Your task to perform on an android device: turn off notifications settings in the gmail app Image 0: 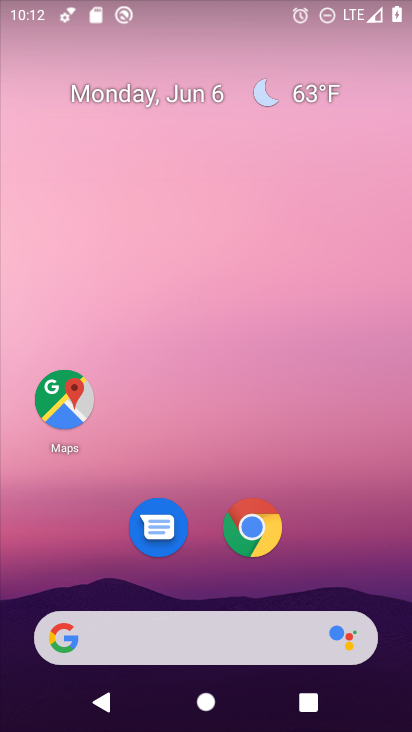
Step 0: drag from (384, 592) to (375, 219)
Your task to perform on an android device: turn off notifications settings in the gmail app Image 1: 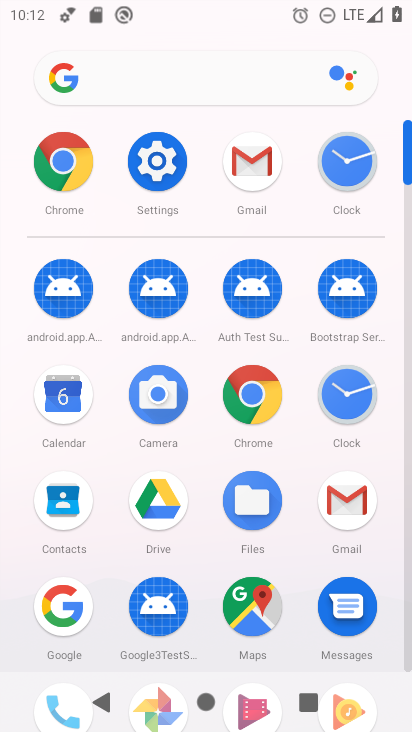
Step 1: click (343, 495)
Your task to perform on an android device: turn off notifications settings in the gmail app Image 2: 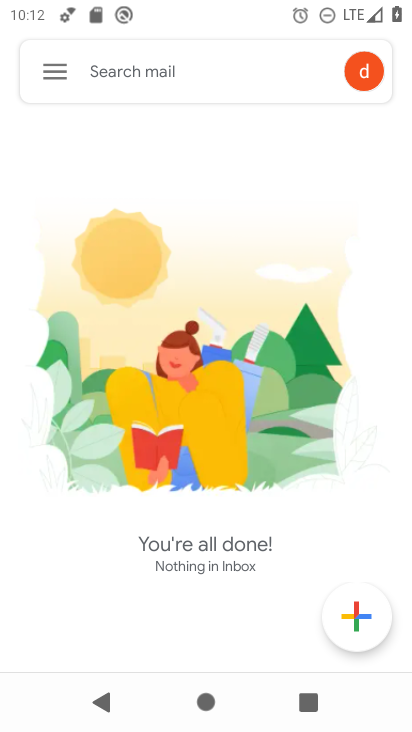
Step 2: click (62, 76)
Your task to perform on an android device: turn off notifications settings in the gmail app Image 3: 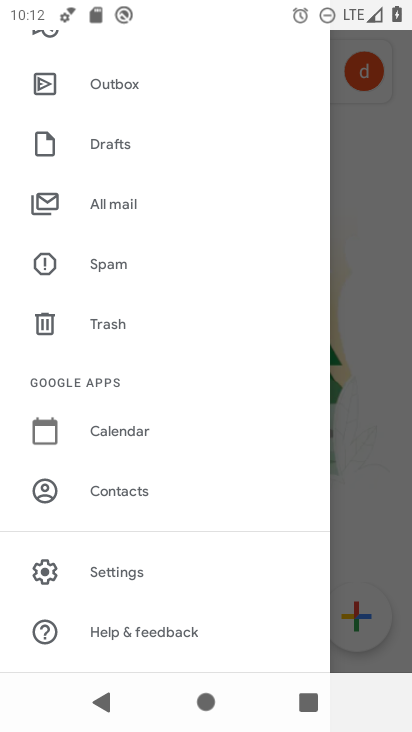
Step 3: drag from (241, 438) to (250, 358)
Your task to perform on an android device: turn off notifications settings in the gmail app Image 4: 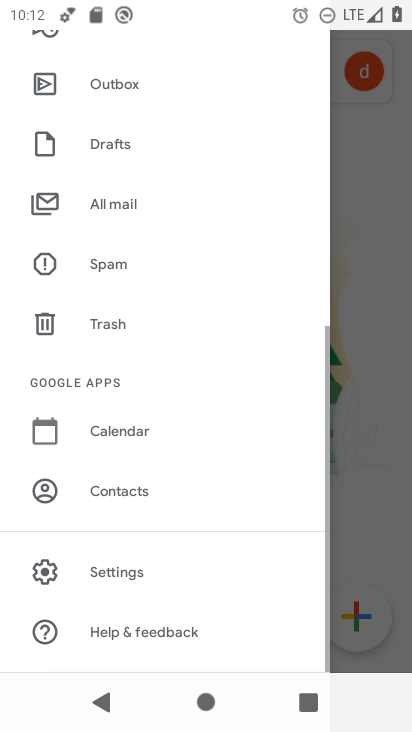
Step 4: click (134, 572)
Your task to perform on an android device: turn off notifications settings in the gmail app Image 5: 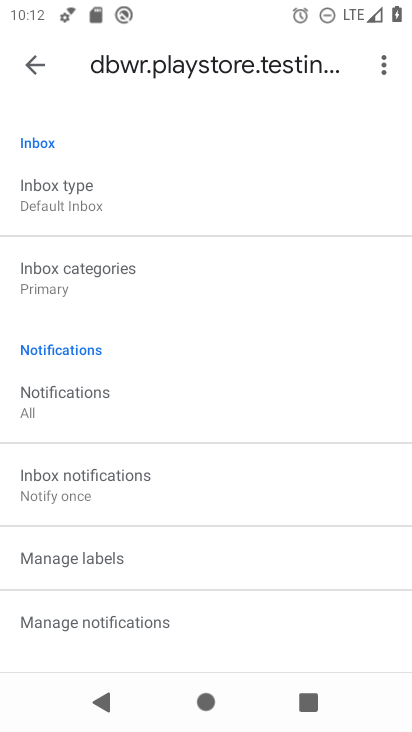
Step 5: drag from (317, 538) to (328, 440)
Your task to perform on an android device: turn off notifications settings in the gmail app Image 6: 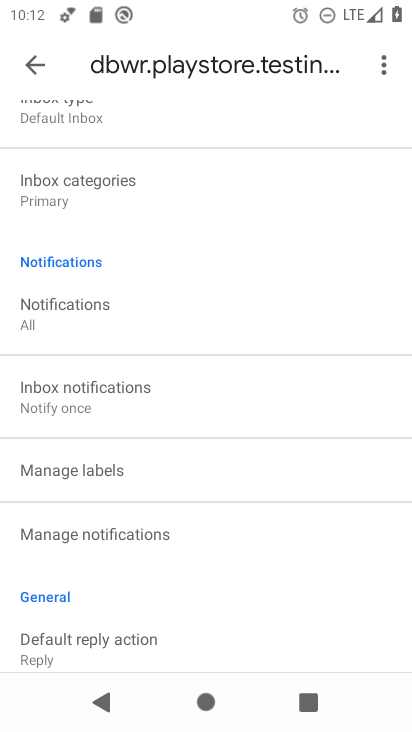
Step 6: drag from (333, 540) to (347, 369)
Your task to perform on an android device: turn off notifications settings in the gmail app Image 7: 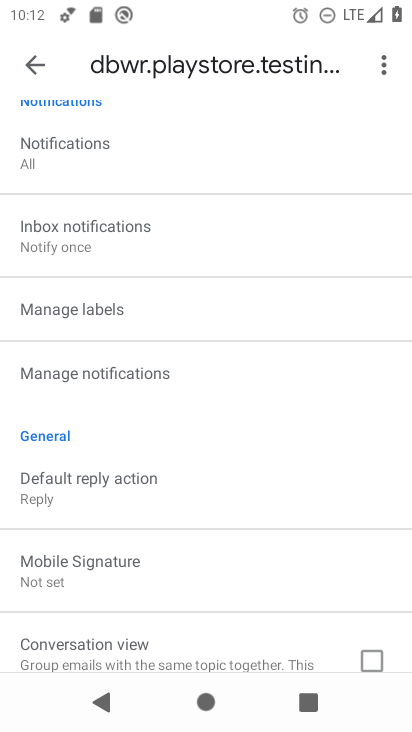
Step 7: drag from (318, 496) to (318, 375)
Your task to perform on an android device: turn off notifications settings in the gmail app Image 8: 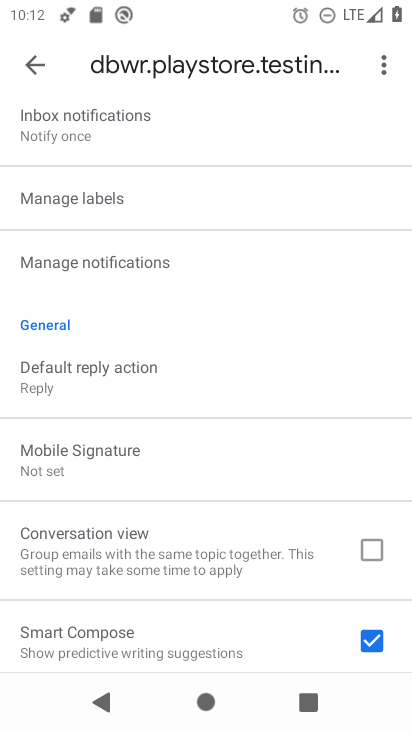
Step 8: drag from (302, 479) to (304, 385)
Your task to perform on an android device: turn off notifications settings in the gmail app Image 9: 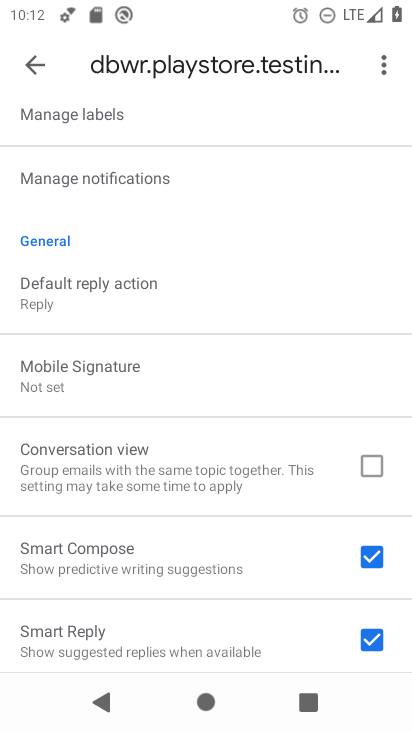
Step 9: drag from (216, 193) to (214, 313)
Your task to perform on an android device: turn off notifications settings in the gmail app Image 10: 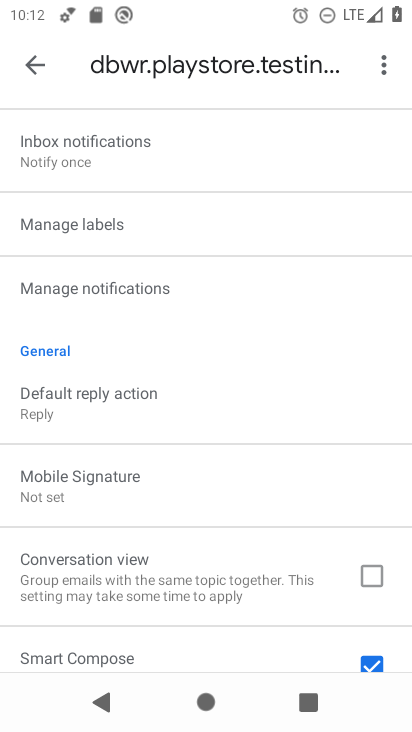
Step 10: click (200, 298)
Your task to perform on an android device: turn off notifications settings in the gmail app Image 11: 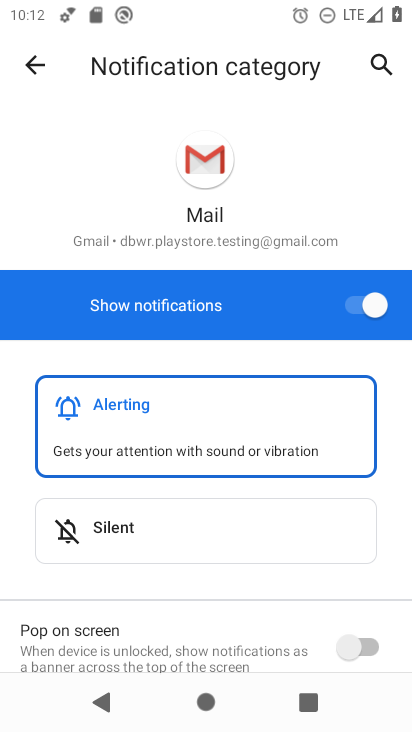
Step 11: click (380, 318)
Your task to perform on an android device: turn off notifications settings in the gmail app Image 12: 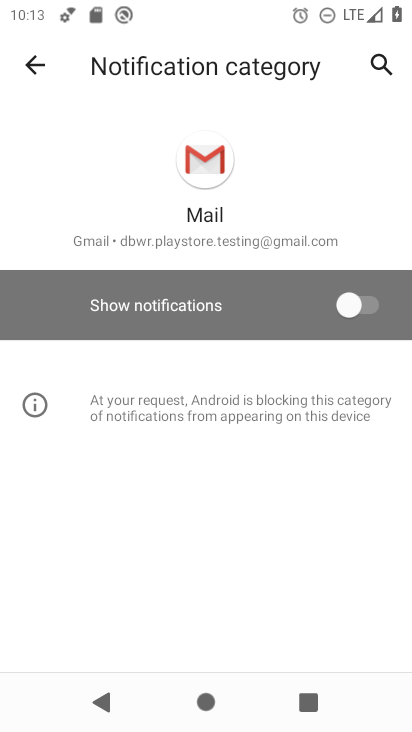
Step 12: task complete